Your task to perform on an android device: Search for vegetarian restaurants on Maps Image 0: 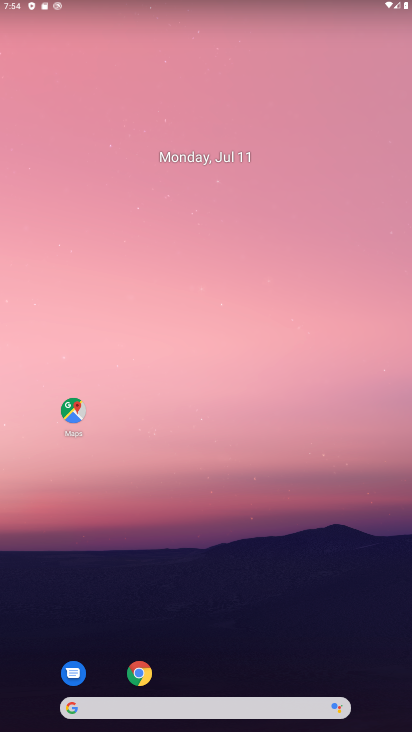
Step 0: press home button
Your task to perform on an android device: Search for vegetarian restaurants on Maps Image 1: 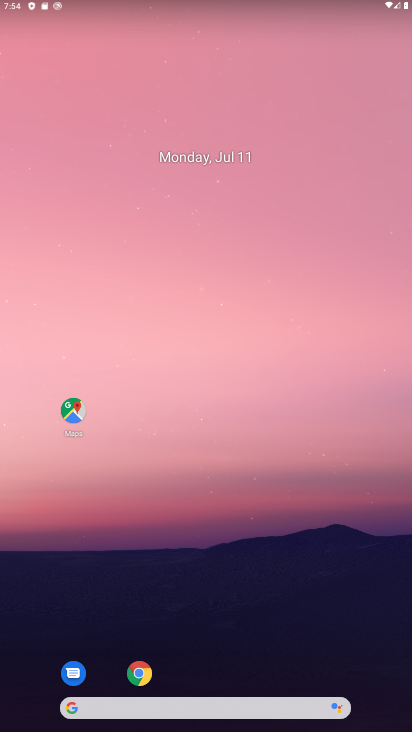
Step 1: click (74, 408)
Your task to perform on an android device: Search for vegetarian restaurants on Maps Image 2: 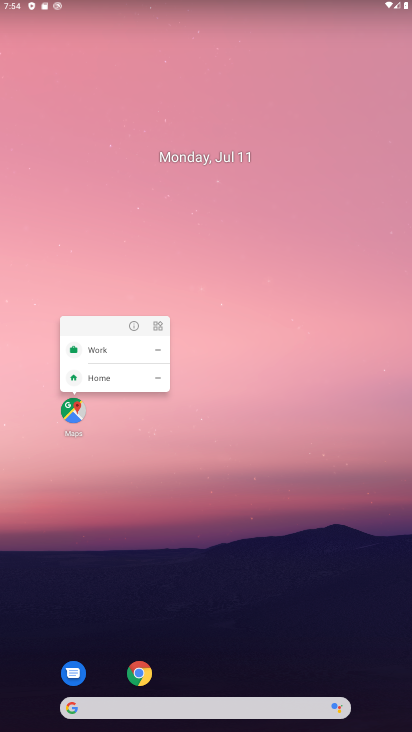
Step 2: click (70, 410)
Your task to perform on an android device: Search for vegetarian restaurants on Maps Image 3: 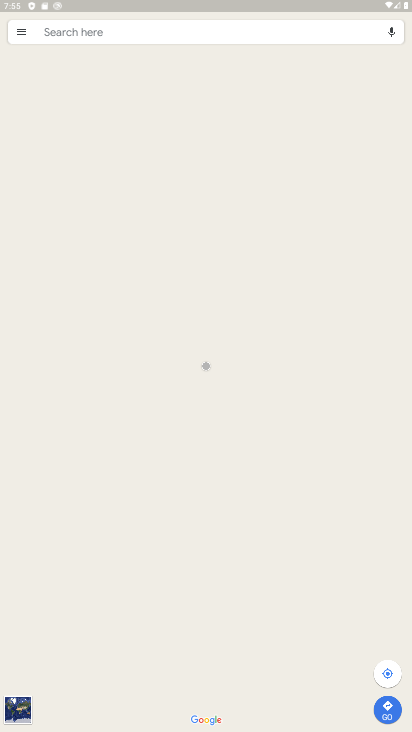
Step 3: click (102, 30)
Your task to perform on an android device: Search for vegetarian restaurants on Maps Image 4: 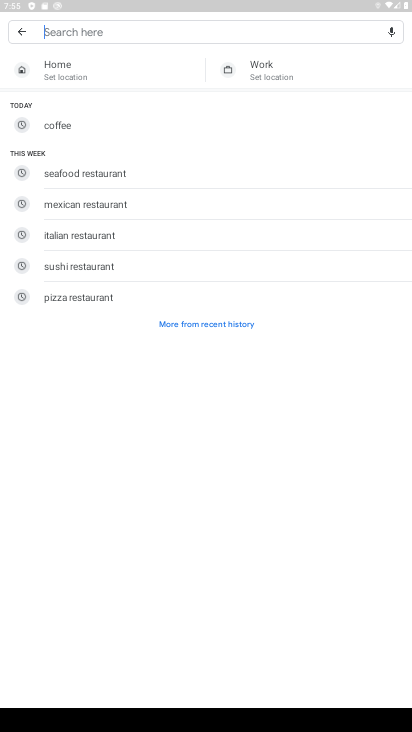
Step 4: type "vegetarian"
Your task to perform on an android device: Search for vegetarian restaurants on Maps Image 5: 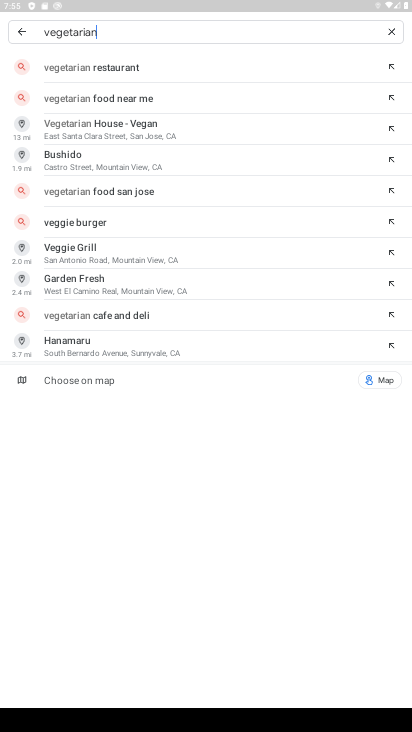
Step 5: click (91, 64)
Your task to perform on an android device: Search for vegetarian restaurants on Maps Image 6: 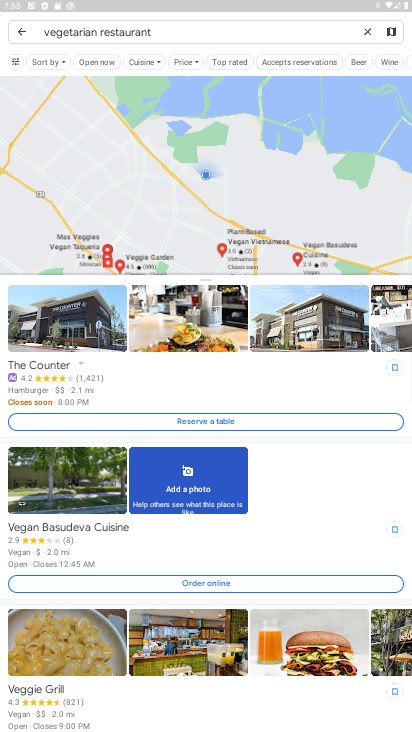
Step 6: task complete